Your task to perform on an android device: turn off location history Image 0: 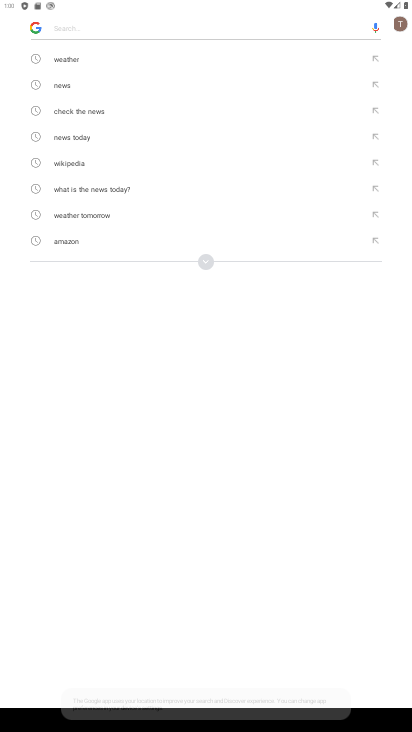
Step 0: press home button
Your task to perform on an android device: turn off location history Image 1: 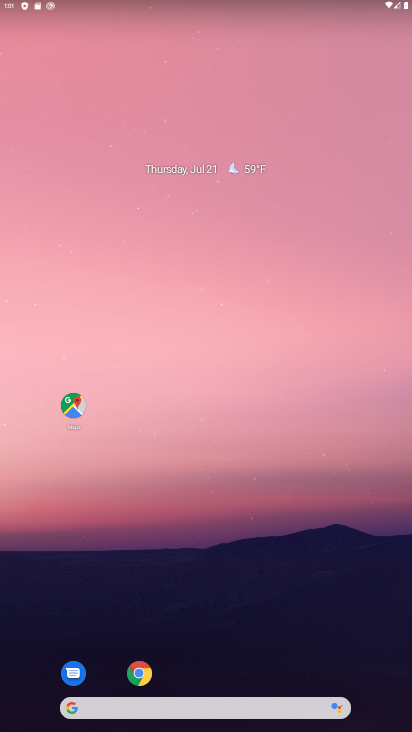
Step 1: drag from (214, 639) to (223, 129)
Your task to perform on an android device: turn off location history Image 2: 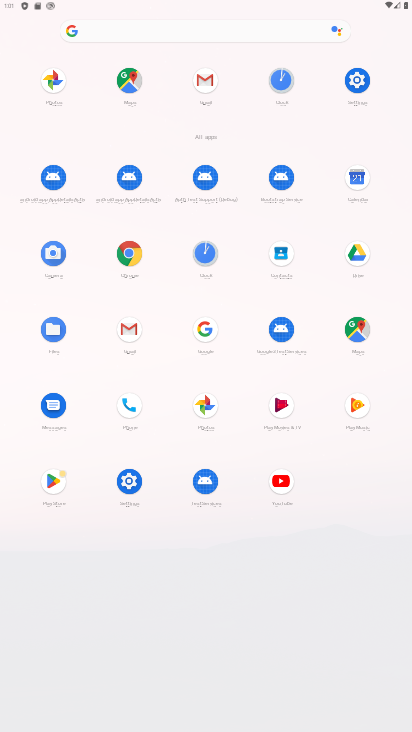
Step 2: click (132, 484)
Your task to perform on an android device: turn off location history Image 3: 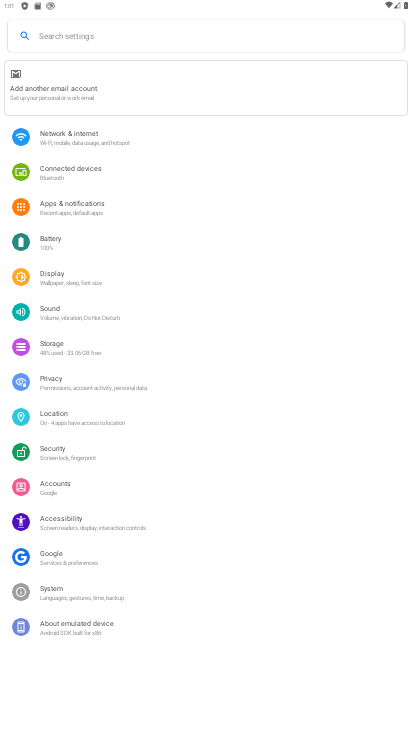
Step 3: click (54, 411)
Your task to perform on an android device: turn off location history Image 4: 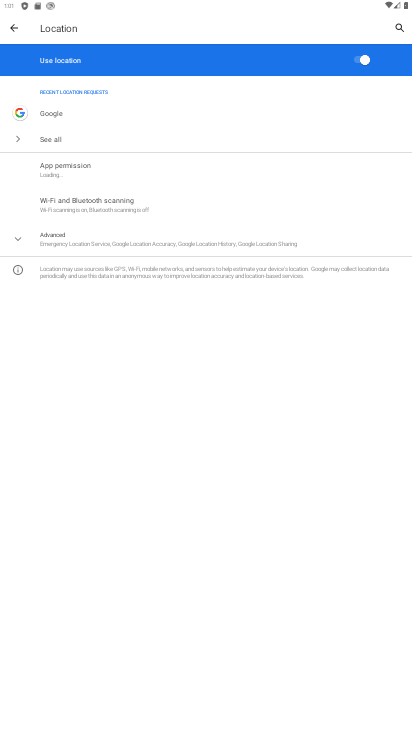
Step 4: click (117, 236)
Your task to perform on an android device: turn off location history Image 5: 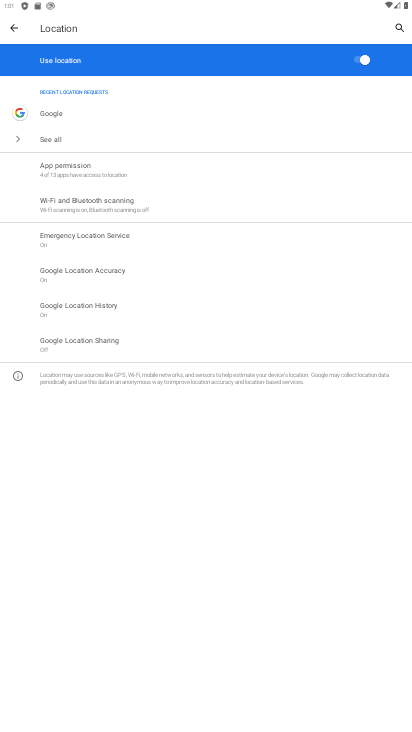
Step 5: click (84, 312)
Your task to perform on an android device: turn off location history Image 6: 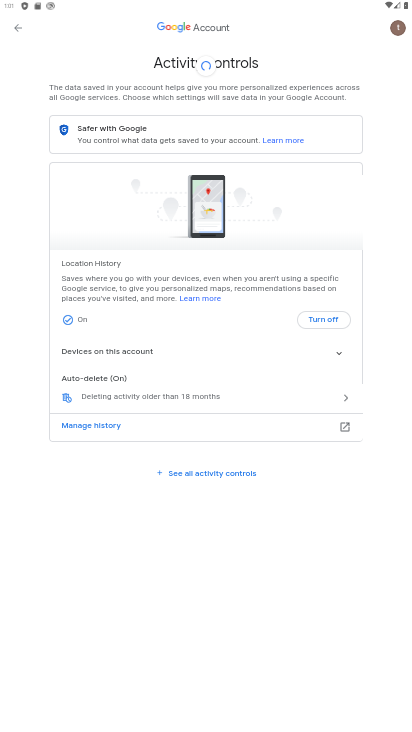
Step 6: click (323, 322)
Your task to perform on an android device: turn off location history Image 7: 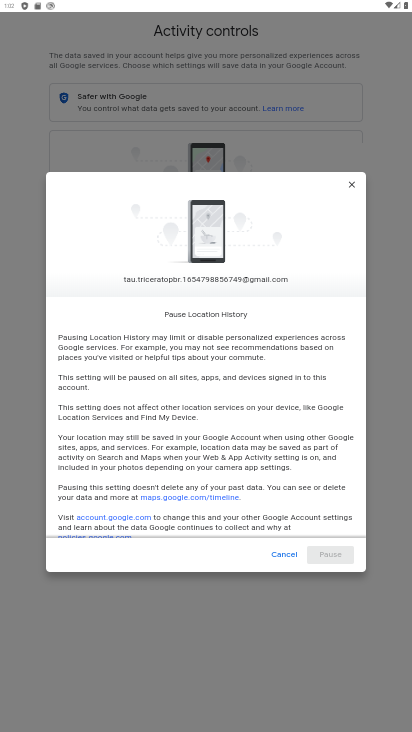
Step 7: drag from (313, 505) to (287, 79)
Your task to perform on an android device: turn off location history Image 8: 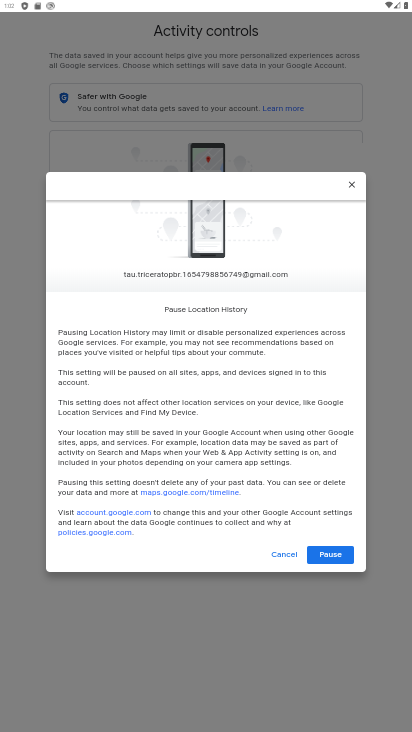
Step 8: click (333, 558)
Your task to perform on an android device: turn off location history Image 9: 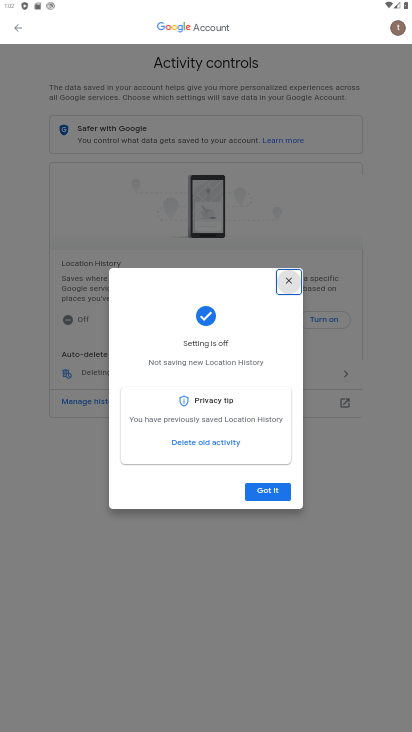
Step 9: click (270, 498)
Your task to perform on an android device: turn off location history Image 10: 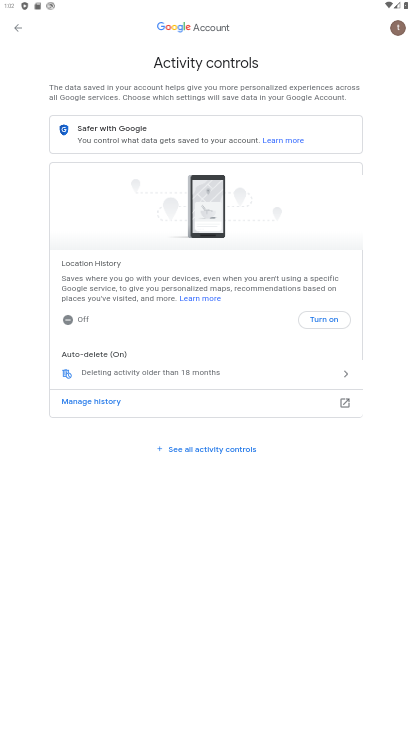
Step 10: task complete